Your task to perform on an android device: check battery use Image 0: 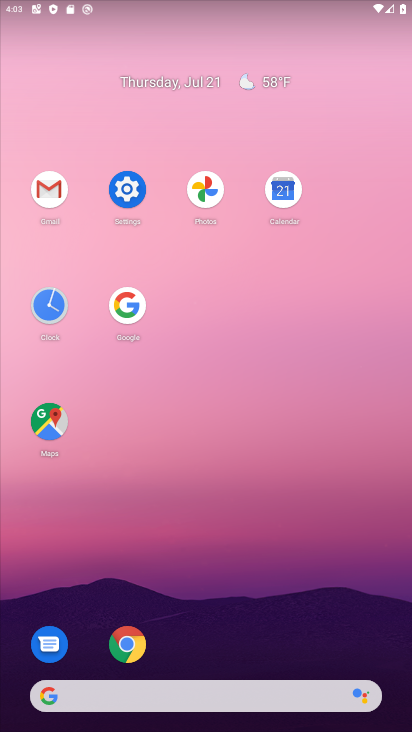
Step 0: click (127, 191)
Your task to perform on an android device: check battery use Image 1: 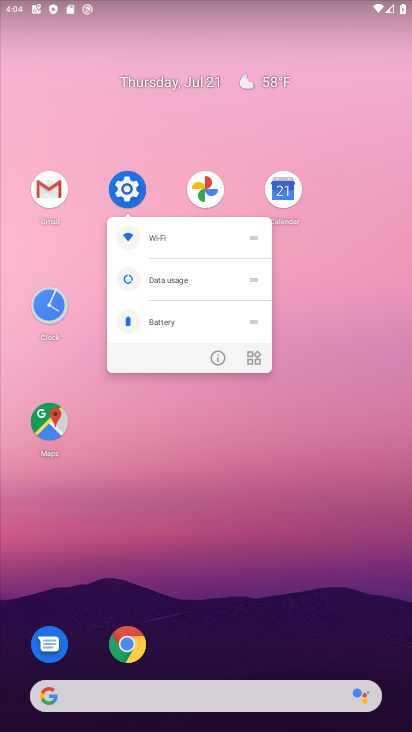
Step 1: click (139, 182)
Your task to perform on an android device: check battery use Image 2: 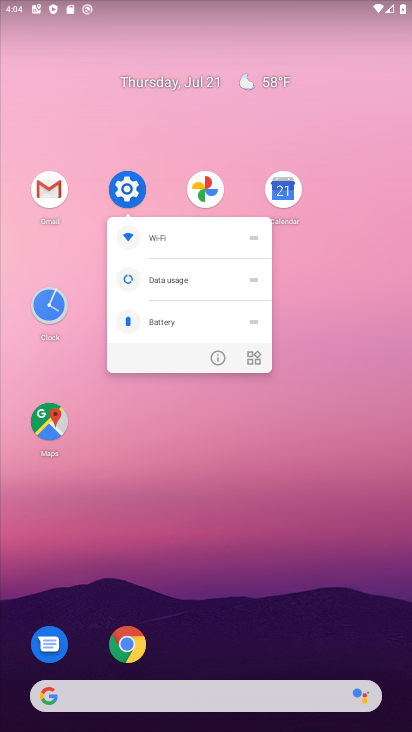
Step 2: click (127, 191)
Your task to perform on an android device: check battery use Image 3: 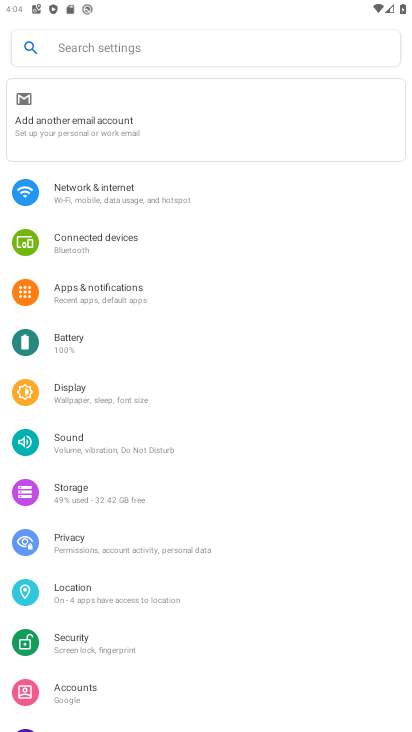
Step 3: click (129, 348)
Your task to perform on an android device: check battery use Image 4: 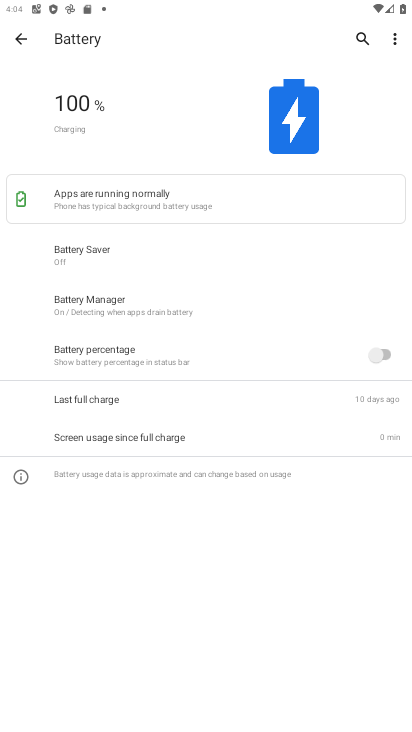
Step 4: click (396, 42)
Your task to perform on an android device: check battery use Image 5: 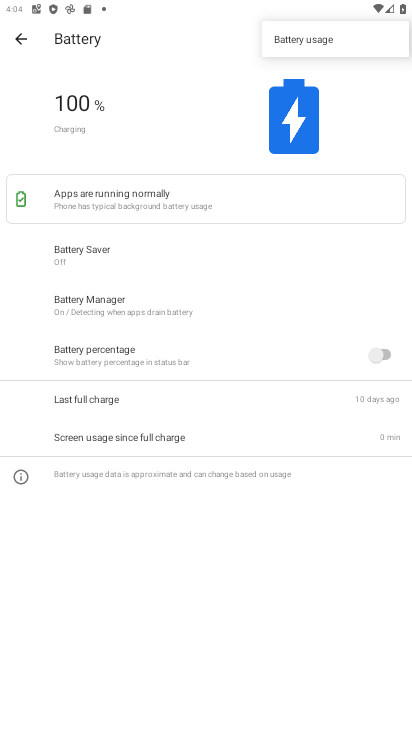
Step 5: click (281, 38)
Your task to perform on an android device: check battery use Image 6: 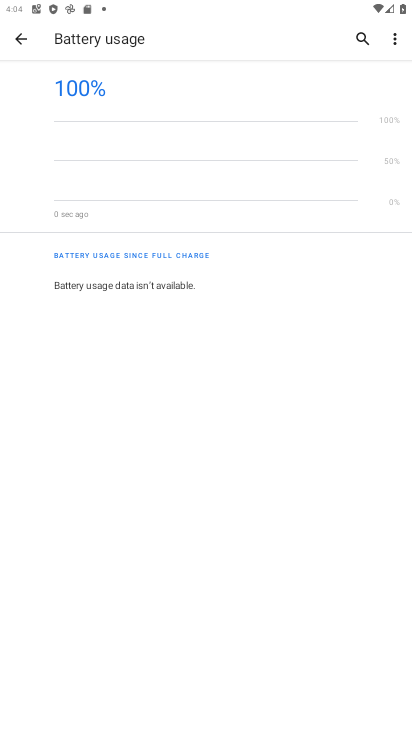
Step 6: task complete